Your task to perform on an android device: What is the recent news? Image 0: 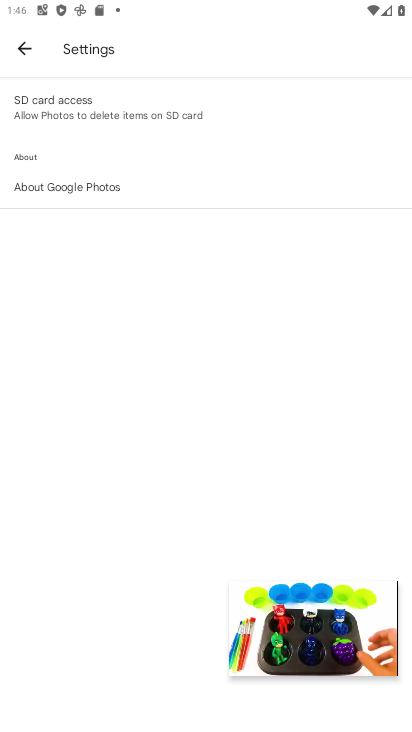
Step 0: click (374, 605)
Your task to perform on an android device: What is the recent news? Image 1: 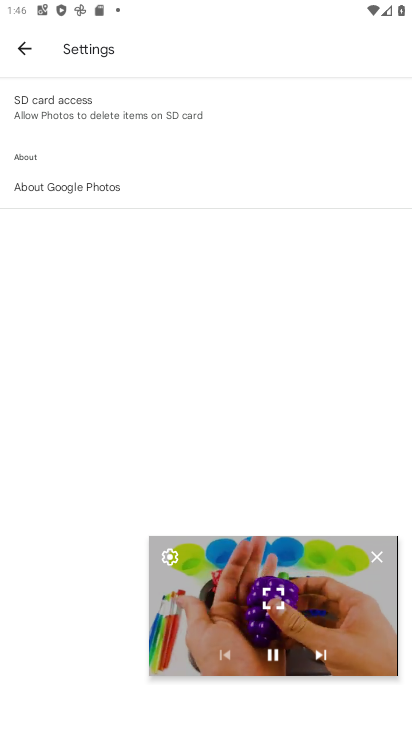
Step 1: click (376, 556)
Your task to perform on an android device: What is the recent news? Image 2: 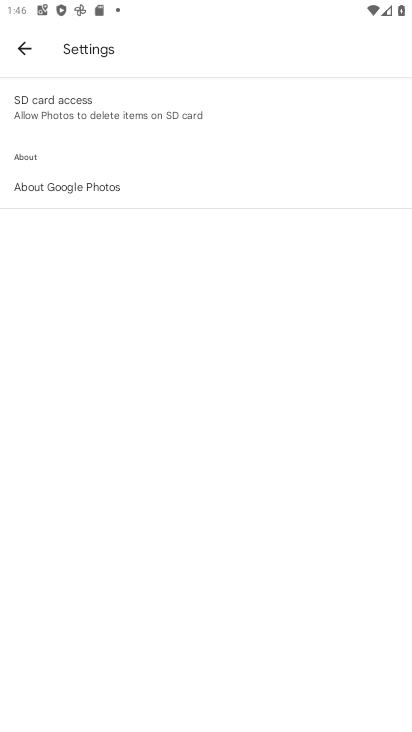
Step 2: press home button
Your task to perform on an android device: What is the recent news? Image 3: 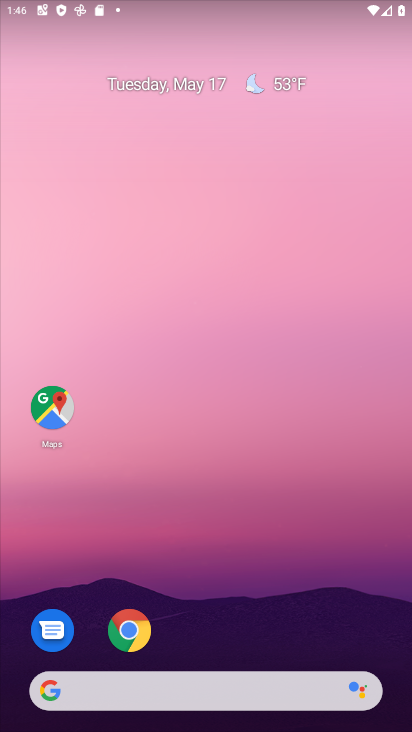
Step 3: drag from (144, 703) to (236, 85)
Your task to perform on an android device: What is the recent news? Image 4: 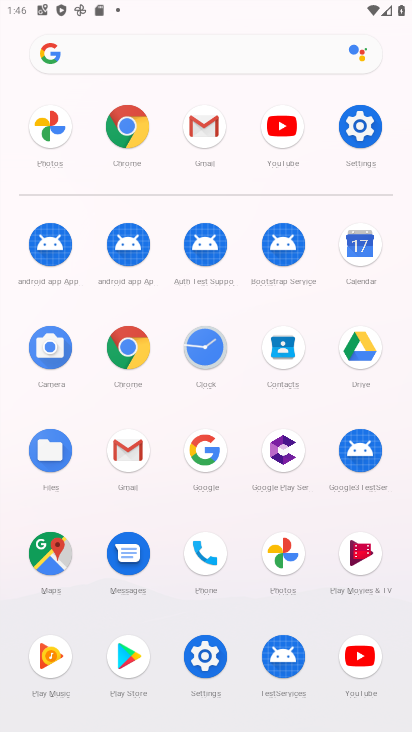
Step 4: click (200, 454)
Your task to perform on an android device: What is the recent news? Image 5: 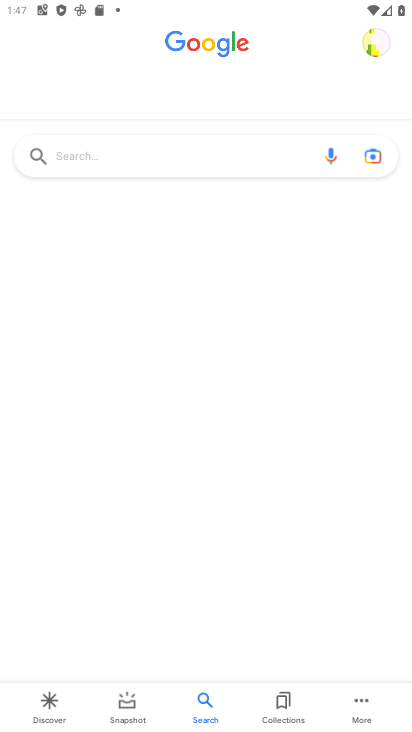
Step 5: click (54, 706)
Your task to perform on an android device: What is the recent news? Image 6: 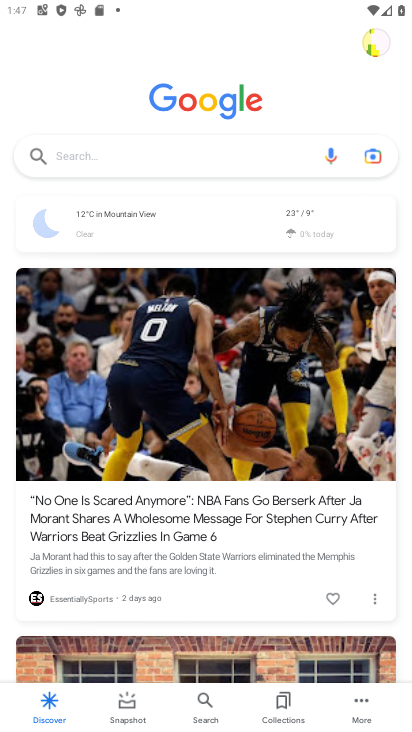
Step 6: click (209, 167)
Your task to perform on an android device: What is the recent news? Image 7: 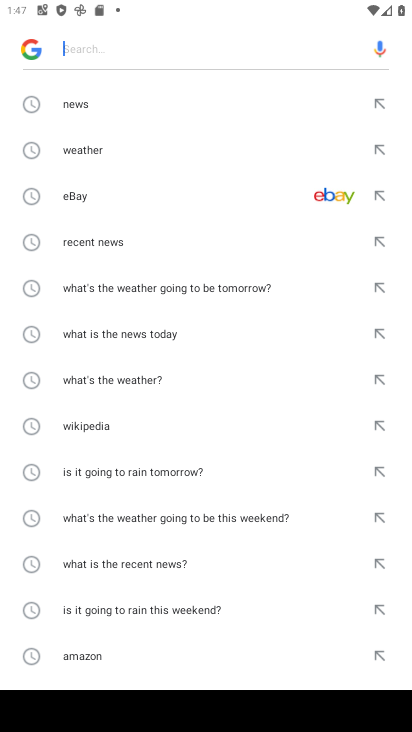
Step 7: click (168, 106)
Your task to perform on an android device: What is the recent news? Image 8: 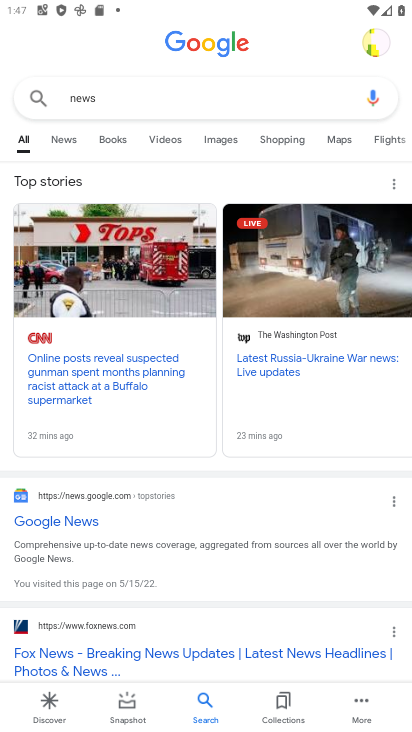
Step 8: task complete